Your task to perform on an android device: Open my contact list Image 0: 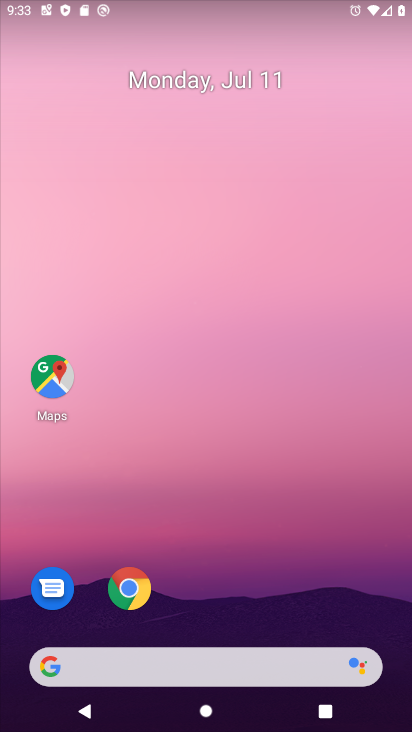
Step 0: drag from (246, 566) to (287, 46)
Your task to perform on an android device: Open my contact list Image 1: 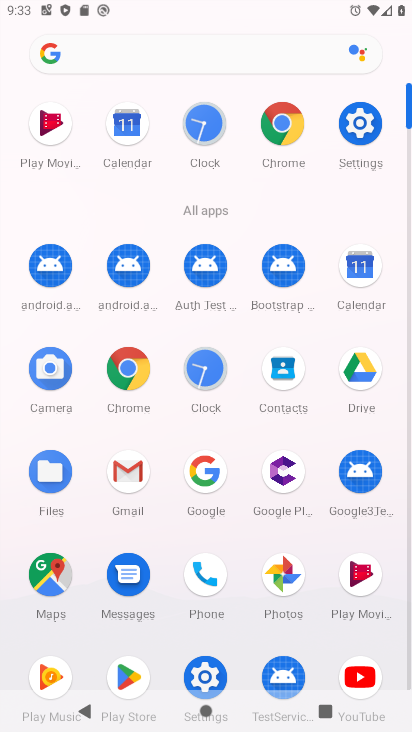
Step 1: click (281, 380)
Your task to perform on an android device: Open my contact list Image 2: 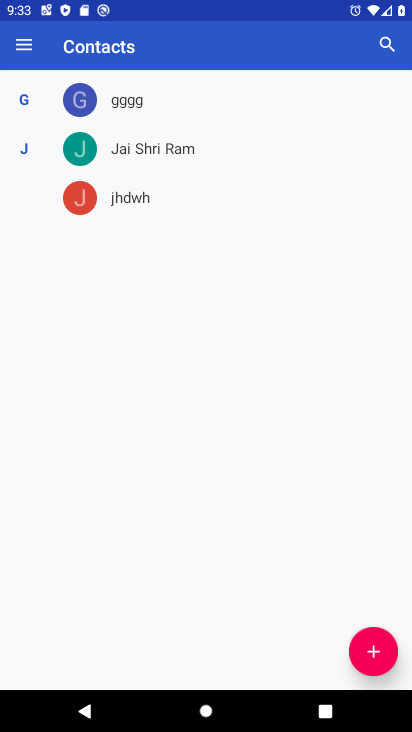
Step 2: click (279, 374)
Your task to perform on an android device: Open my contact list Image 3: 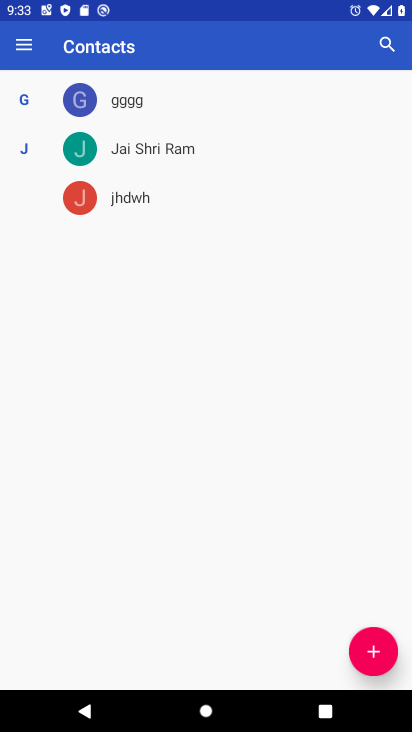
Step 3: task complete